Your task to perform on an android device: turn on showing notifications on the lock screen Image 0: 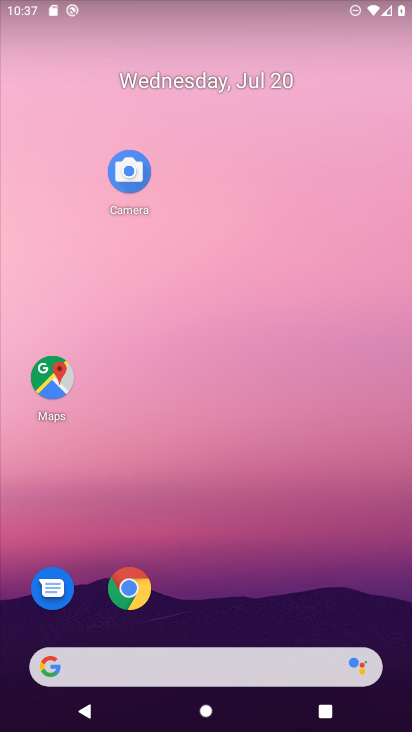
Step 0: press home button
Your task to perform on an android device: turn on showing notifications on the lock screen Image 1: 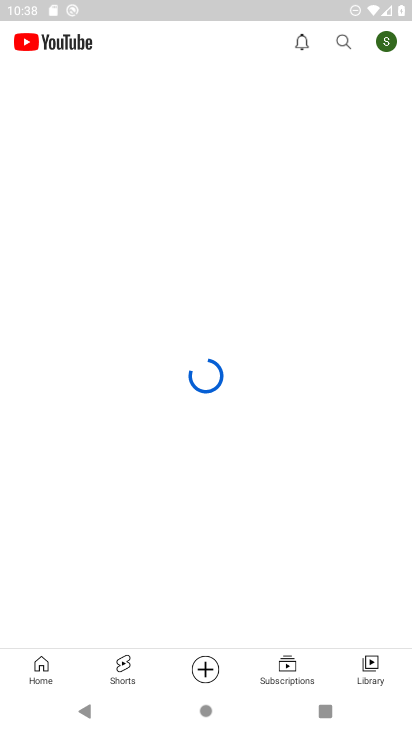
Step 1: drag from (240, 600) to (237, 151)
Your task to perform on an android device: turn on showing notifications on the lock screen Image 2: 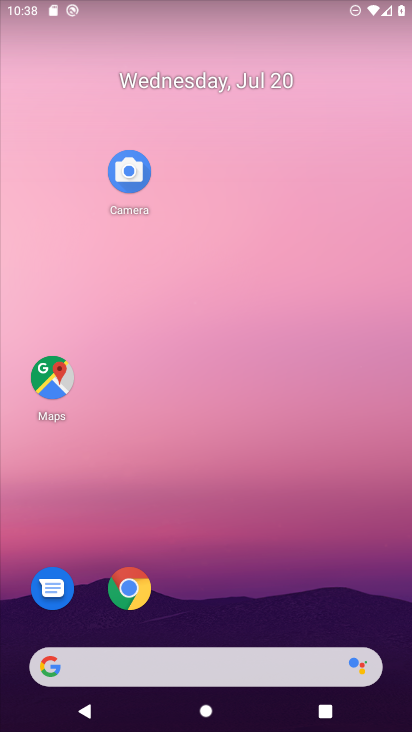
Step 2: drag from (286, 604) to (260, 44)
Your task to perform on an android device: turn on showing notifications on the lock screen Image 3: 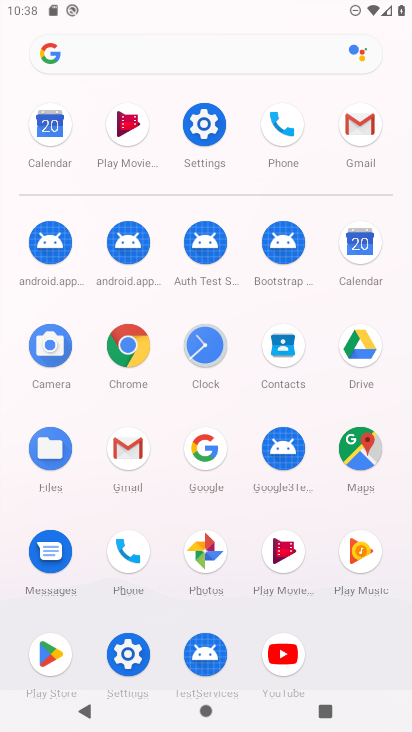
Step 3: click (211, 130)
Your task to perform on an android device: turn on showing notifications on the lock screen Image 4: 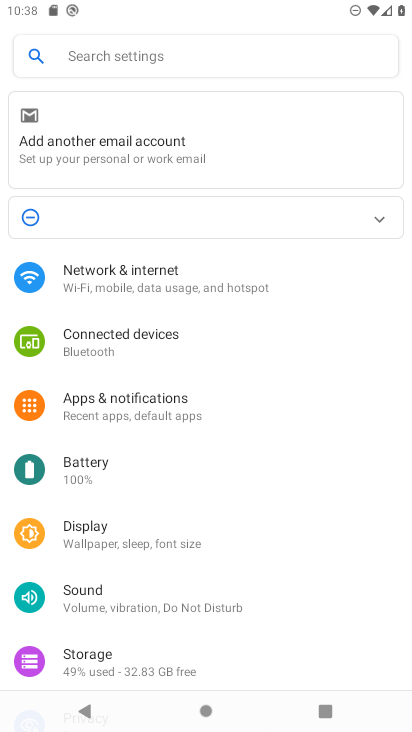
Step 4: click (134, 412)
Your task to perform on an android device: turn on showing notifications on the lock screen Image 5: 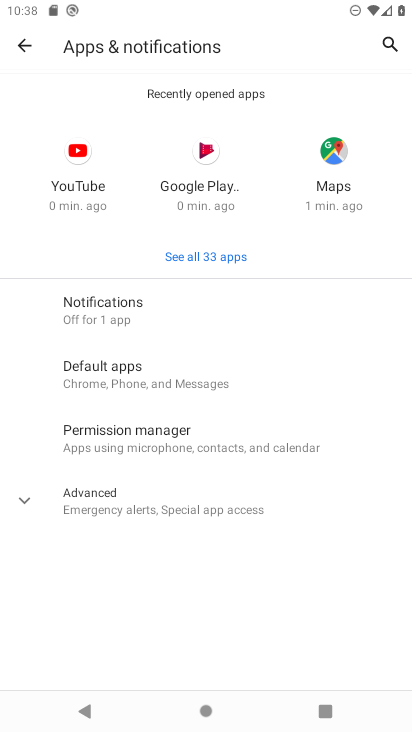
Step 5: click (78, 310)
Your task to perform on an android device: turn on showing notifications on the lock screen Image 6: 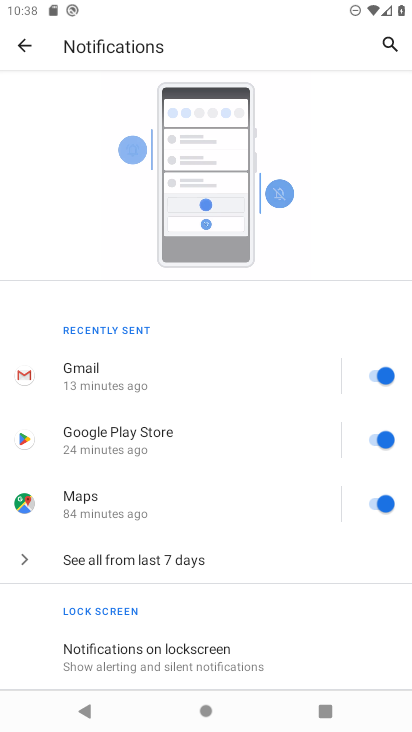
Step 6: click (151, 648)
Your task to perform on an android device: turn on showing notifications on the lock screen Image 7: 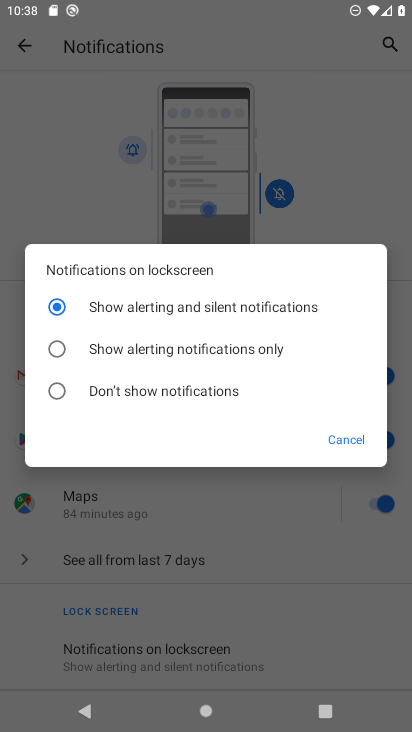
Step 7: task complete